Your task to perform on an android device: change the clock style Image 0: 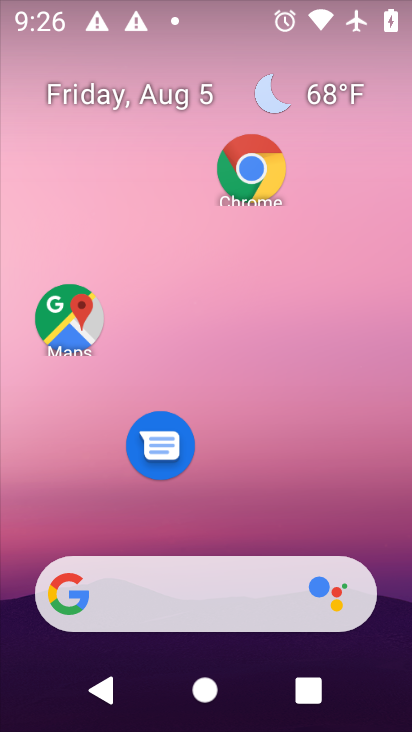
Step 0: drag from (217, 522) to (204, 112)
Your task to perform on an android device: change the clock style Image 1: 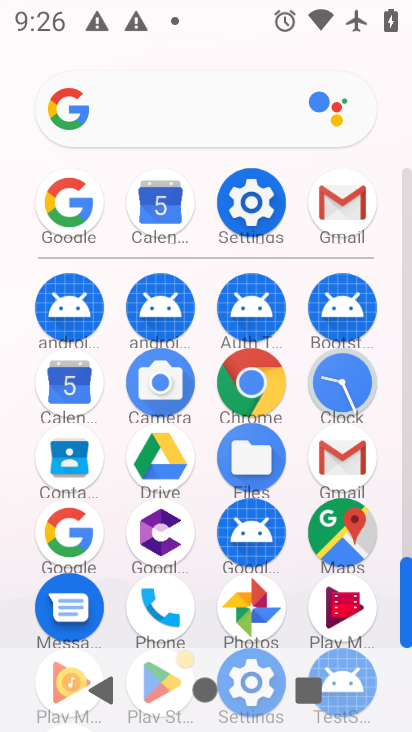
Step 1: click (333, 388)
Your task to perform on an android device: change the clock style Image 2: 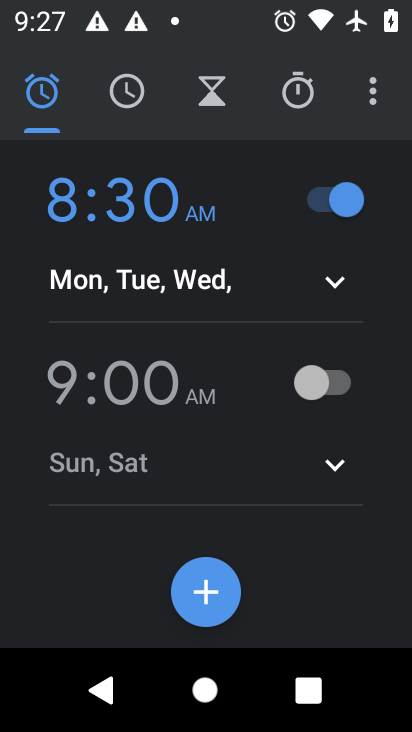
Step 2: click (365, 98)
Your task to perform on an android device: change the clock style Image 3: 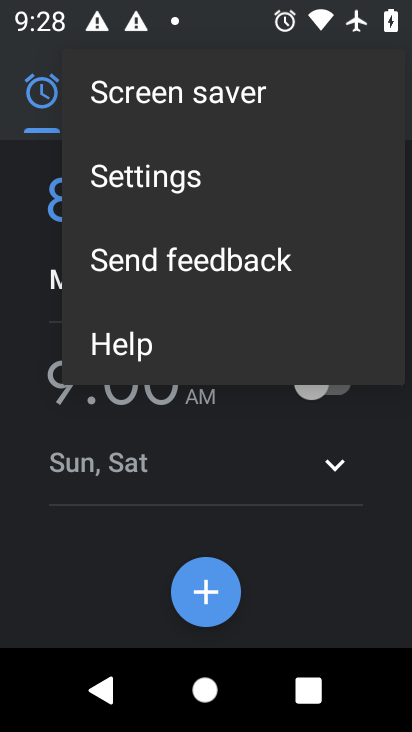
Step 3: click (157, 165)
Your task to perform on an android device: change the clock style Image 4: 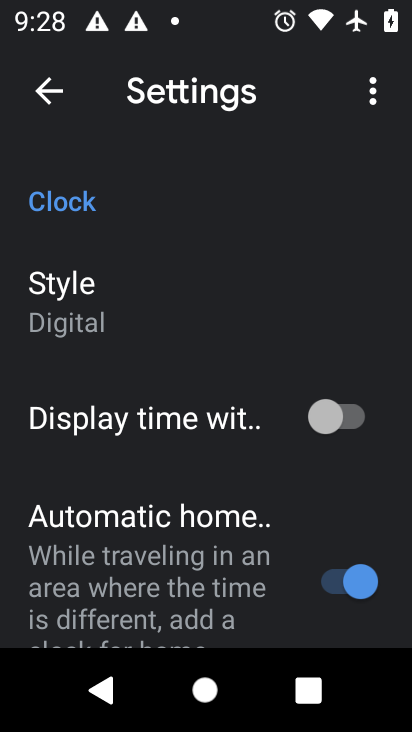
Step 4: click (128, 327)
Your task to perform on an android device: change the clock style Image 5: 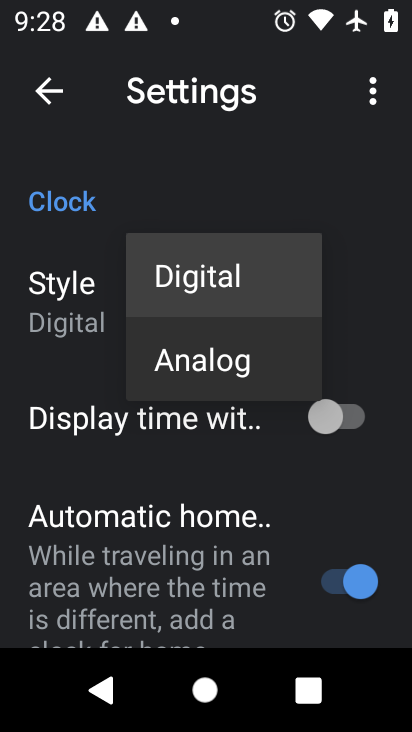
Step 5: click (175, 368)
Your task to perform on an android device: change the clock style Image 6: 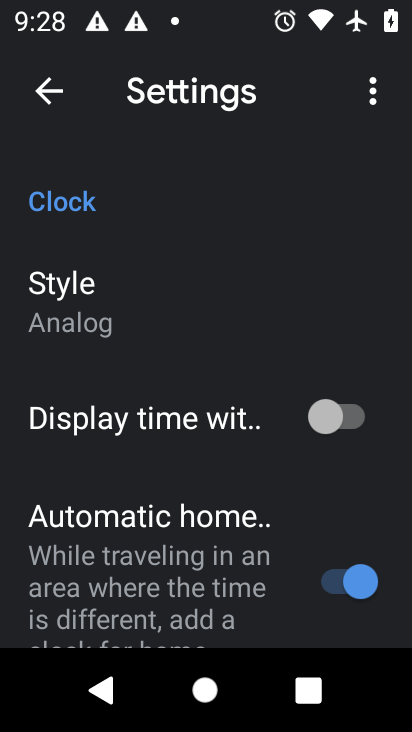
Step 6: task complete